Your task to perform on an android device: What's the weather? Image 0: 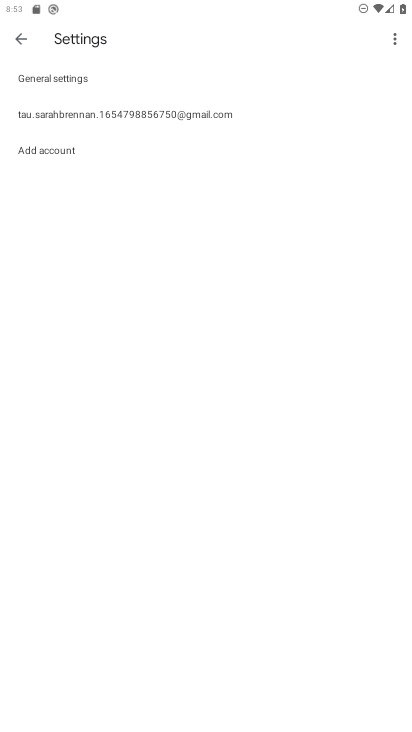
Step 0: press home button
Your task to perform on an android device: What's the weather? Image 1: 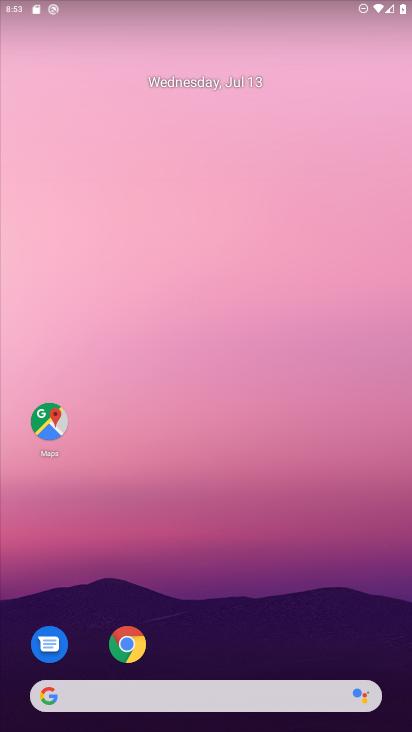
Step 1: click (282, 689)
Your task to perform on an android device: What's the weather? Image 2: 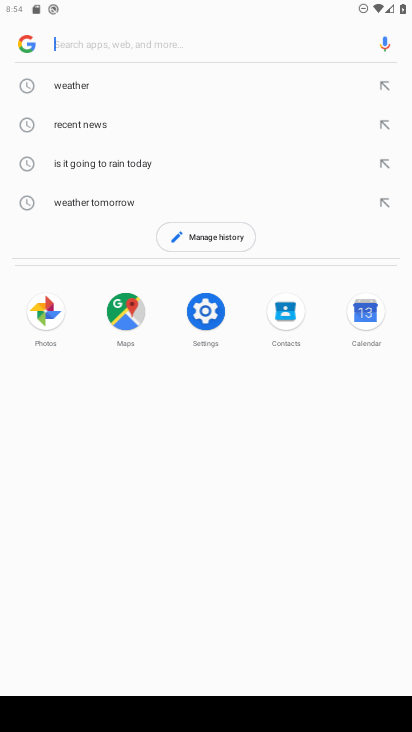
Step 2: click (84, 92)
Your task to perform on an android device: What's the weather? Image 3: 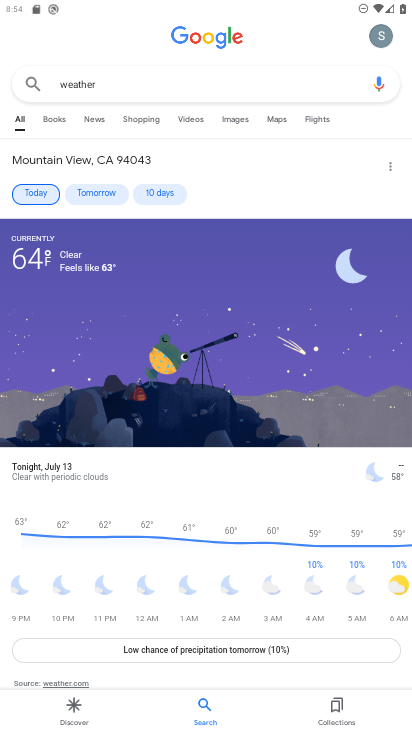
Step 3: click (84, 92)
Your task to perform on an android device: What's the weather? Image 4: 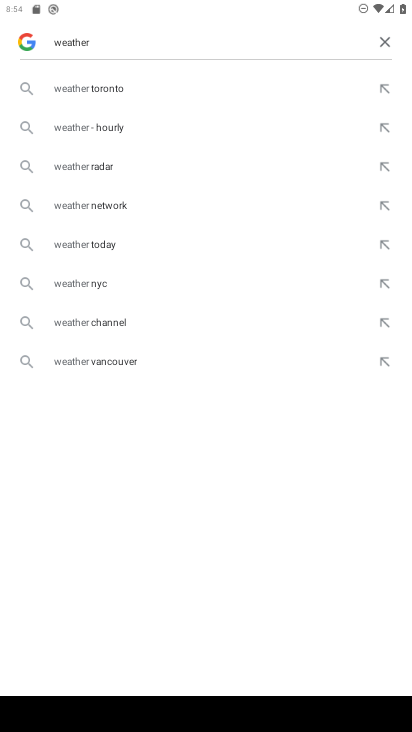
Step 4: task complete